Your task to perform on an android device: Open Google Chrome and open the bookmarks view Image 0: 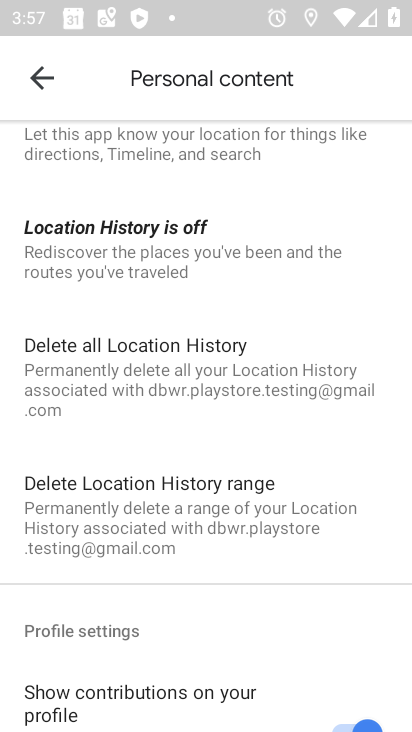
Step 0: press home button
Your task to perform on an android device: Open Google Chrome and open the bookmarks view Image 1: 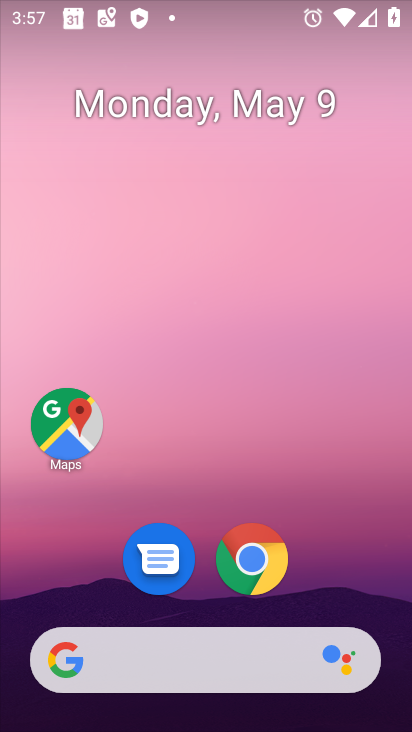
Step 1: click (249, 568)
Your task to perform on an android device: Open Google Chrome and open the bookmarks view Image 2: 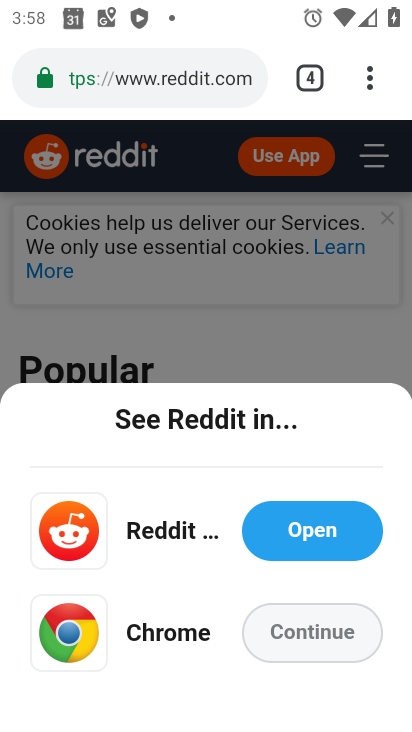
Step 2: task complete